Your task to perform on an android device: Turn off the flashlight Image 0: 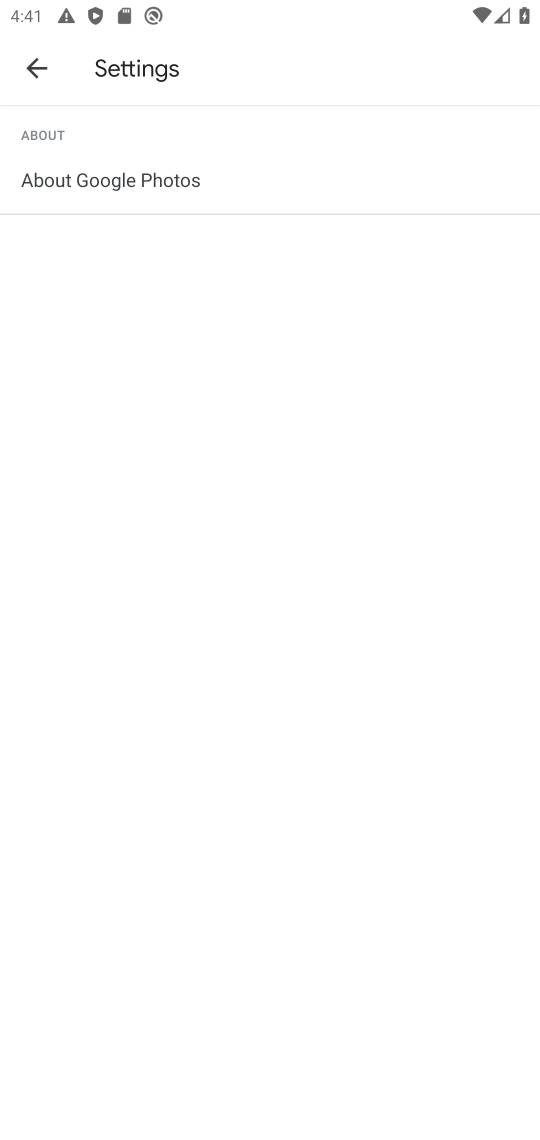
Step 0: press home button
Your task to perform on an android device: Turn off the flashlight Image 1: 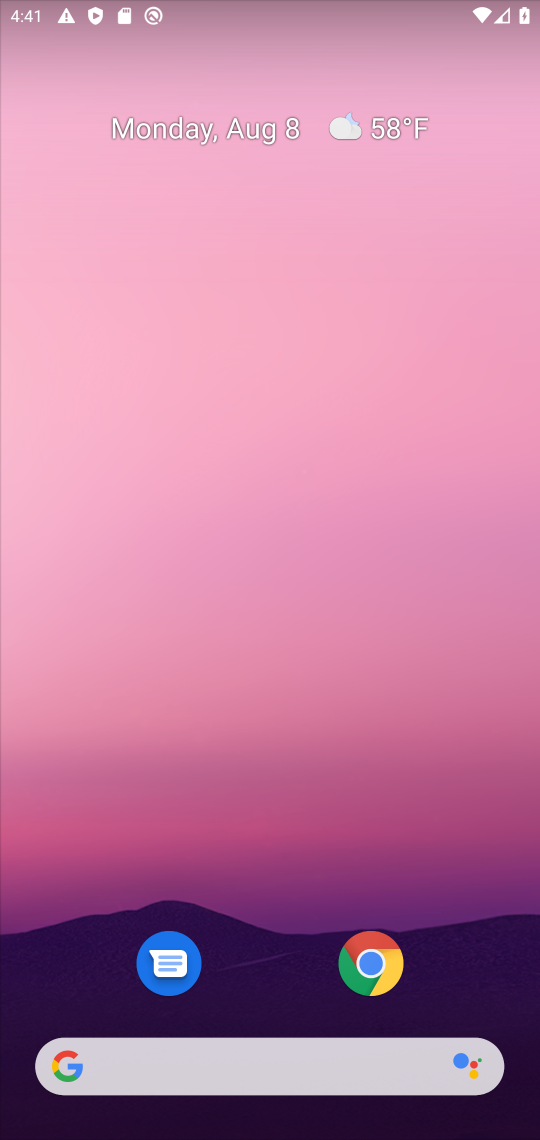
Step 1: drag from (265, 994) to (243, 59)
Your task to perform on an android device: Turn off the flashlight Image 2: 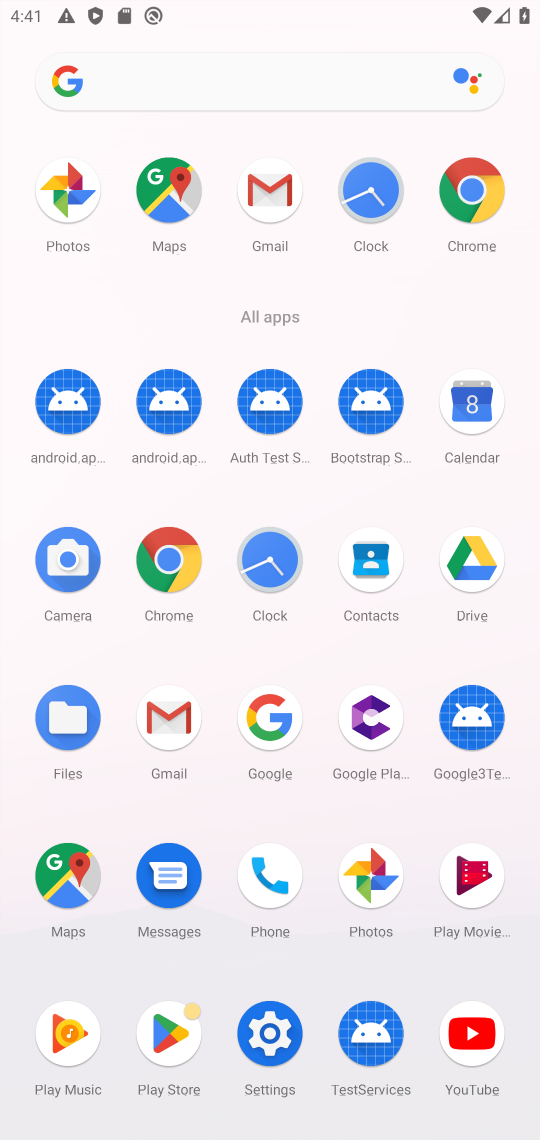
Step 2: click (271, 1026)
Your task to perform on an android device: Turn off the flashlight Image 3: 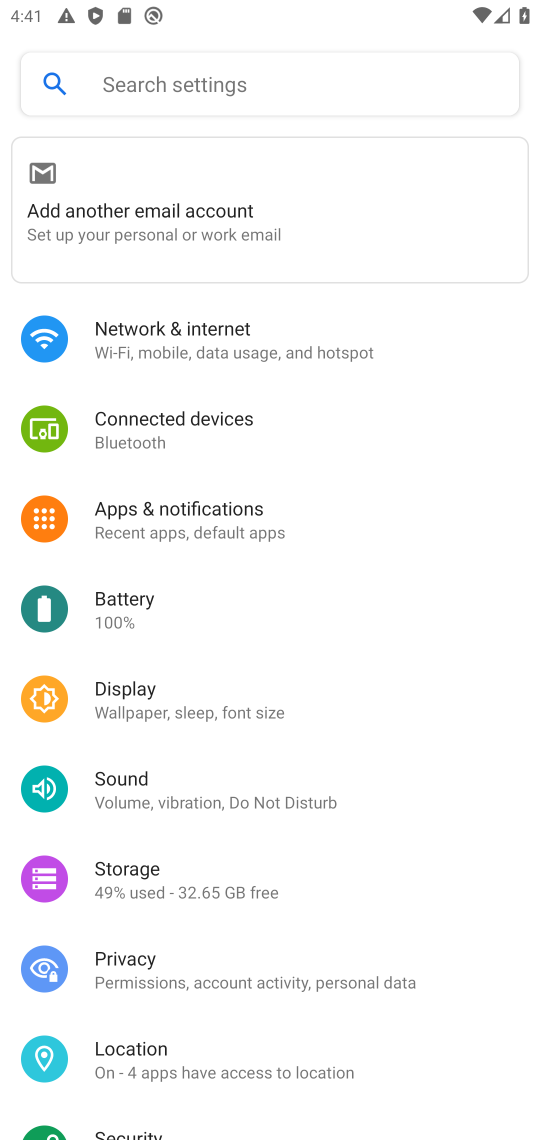
Step 3: task complete